Your task to perform on an android device: remove spam from my inbox in the gmail app Image 0: 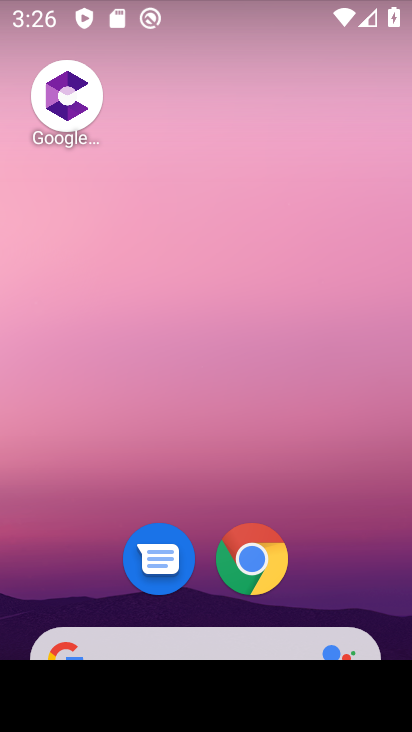
Step 0: press back button
Your task to perform on an android device: remove spam from my inbox in the gmail app Image 1: 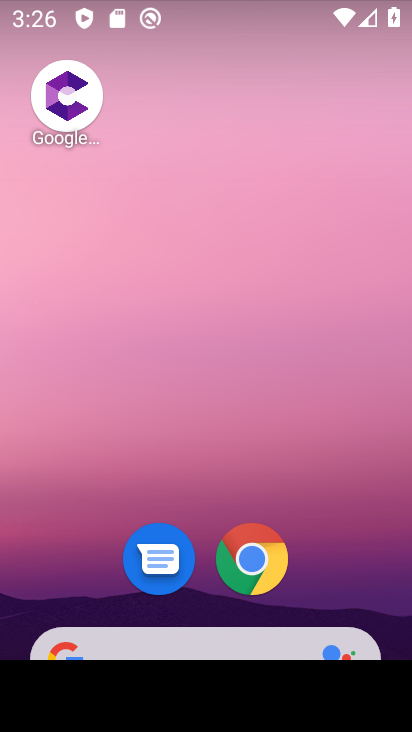
Step 1: drag from (333, 554) to (136, 65)
Your task to perform on an android device: remove spam from my inbox in the gmail app Image 2: 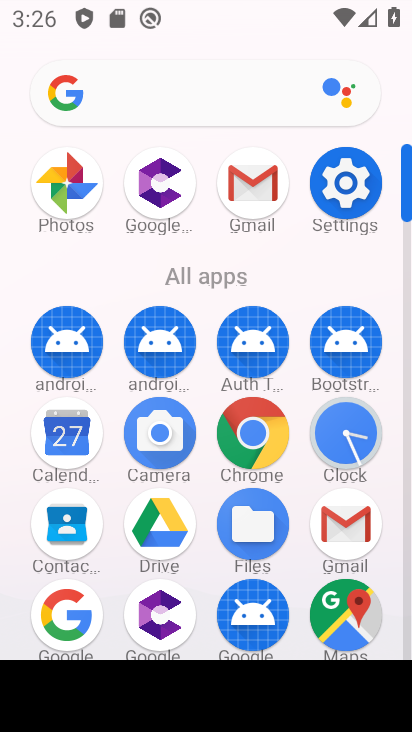
Step 2: press back button
Your task to perform on an android device: remove spam from my inbox in the gmail app Image 3: 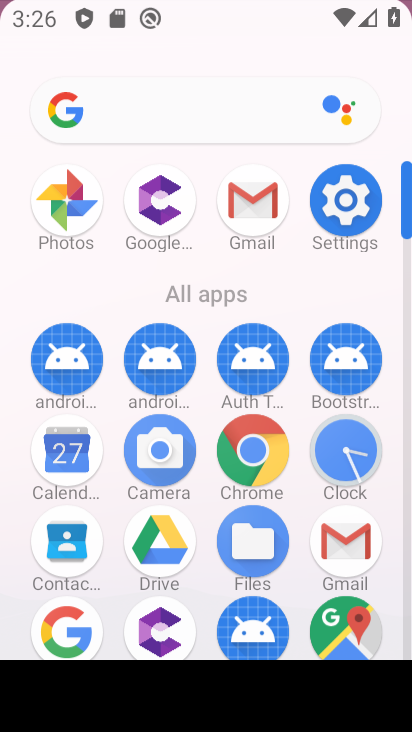
Step 3: press back button
Your task to perform on an android device: remove spam from my inbox in the gmail app Image 4: 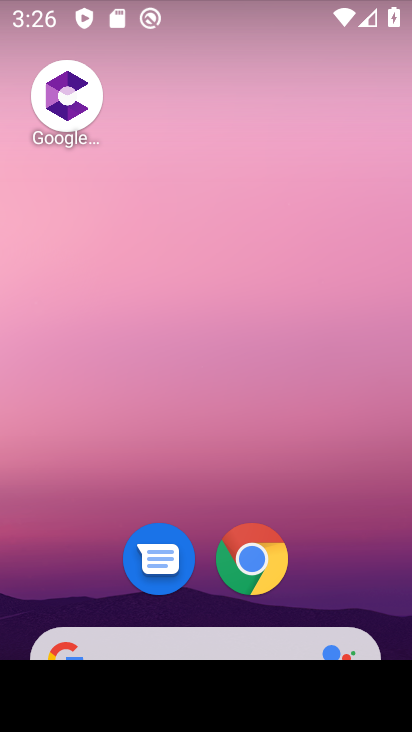
Step 4: drag from (353, 569) to (139, 59)
Your task to perform on an android device: remove spam from my inbox in the gmail app Image 5: 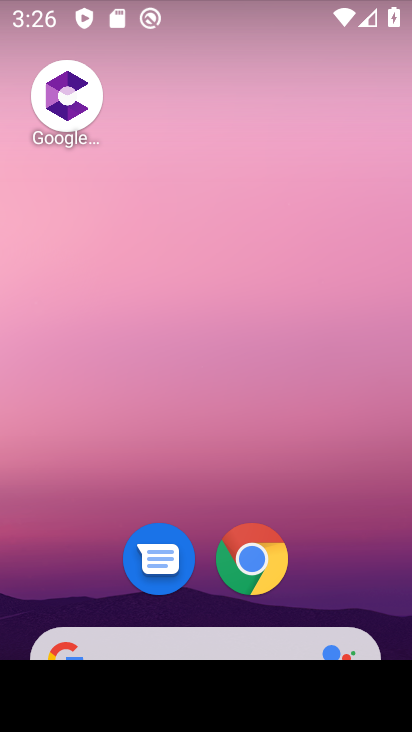
Step 5: drag from (265, 446) to (126, 123)
Your task to perform on an android device: remove spam from my inbox in the gmail app Image 6: 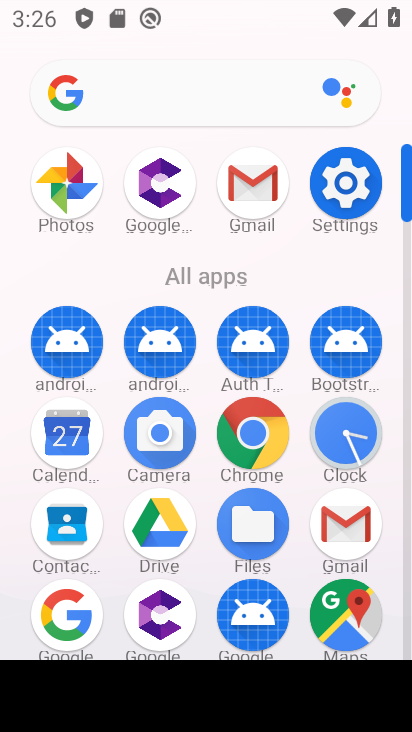
Step 6: click (333, 518)
Your task to perform on an android device: remove spam from my inbox in the gmail app Image 7: 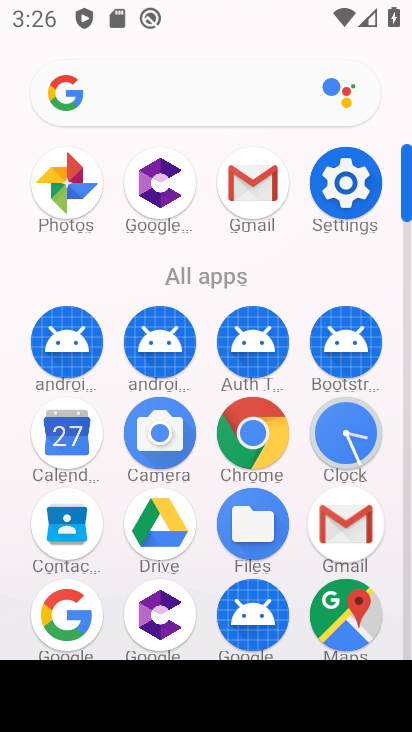
Step 7: click (334, 519)
Your task to perform on an android device: remove spam from my inbox in the gmail app Image 8: 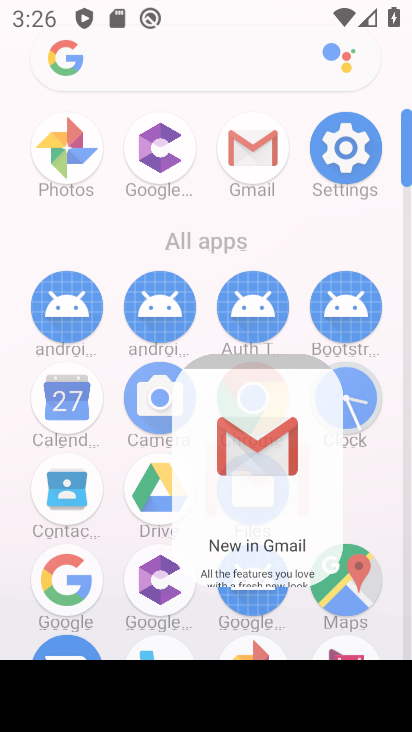
Step 8: click (335, 519)
Your task to perform on an android device: remove spam from my inbox in the gmail app Image 9: 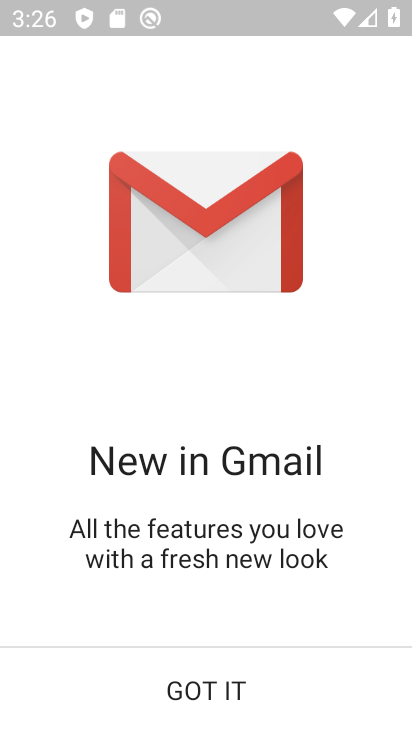
Step 9: click (335, 519)
Your task to perform on an android device: remove spam from my inbox in the gmail app Image 10: 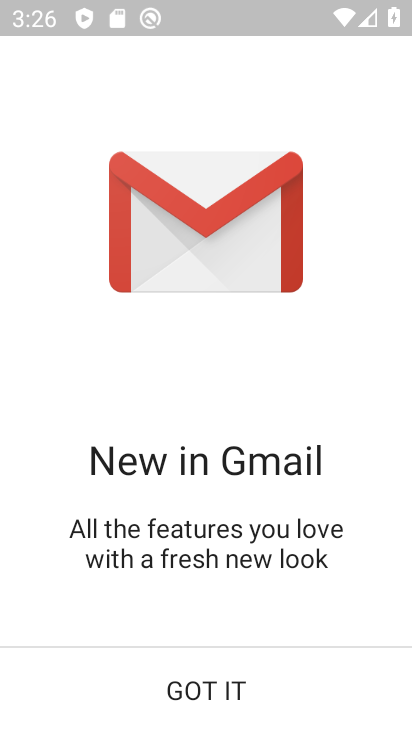
Step 10: click (335, 519)
Your task to perform on an android device: remove spam from my inbox in the gmail app Image 11: 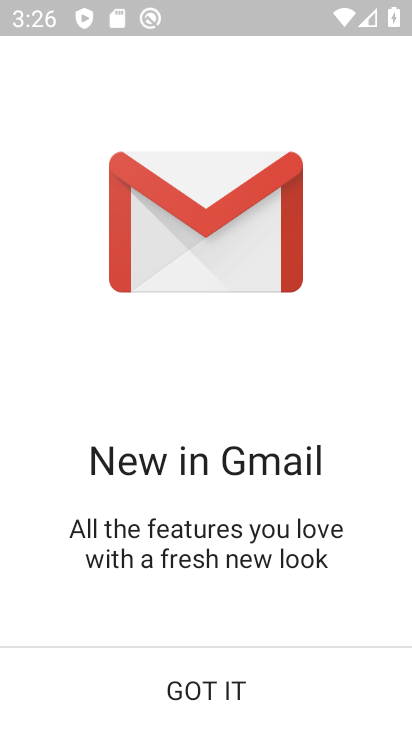
Step 11: click (335, 519)
Your task to perform on an android device: remove spam from my inbox in the gmail app Image 12: 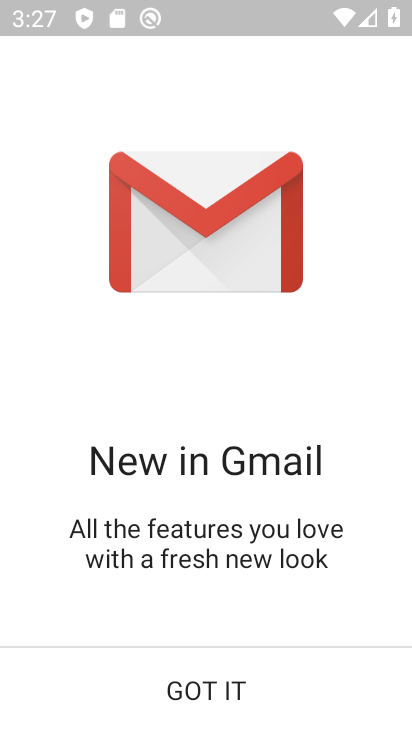
Step 12: click (186, 692)
Your task to perform on an android device: remove spam from my inbox in the gmail app Image 13: 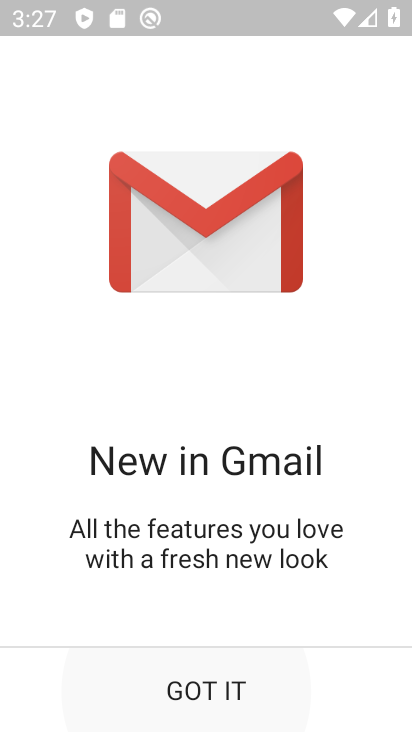
Step 13: click (193, 685)
Your task to perform on an android device: remove spam from my inbox in the gmail app Image 14: 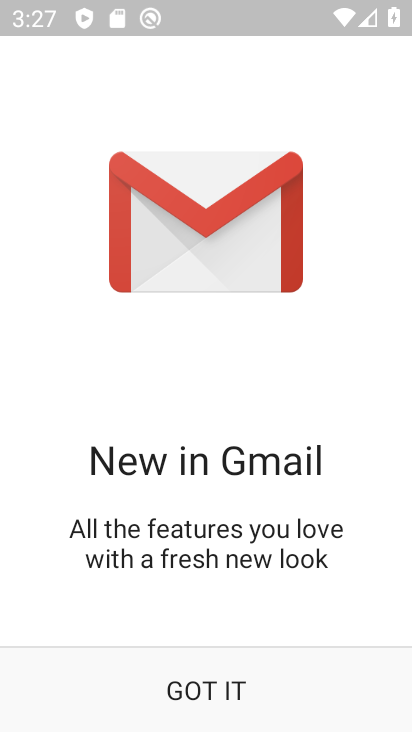
Step 14: drag from (203, 675) to (210, 713)
Your task to perform on an android device: remove spam from my inbox in the gmail app Image 15: 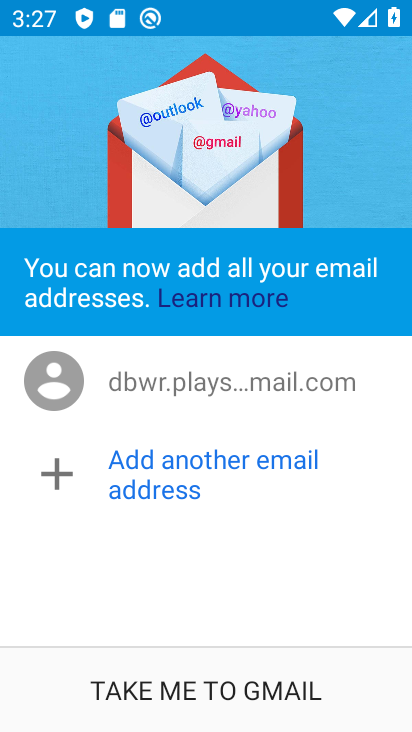
Step 15: click (207, 691)
Your task to perform on an android device: remove spam from my inbox in the gmail app Image 16: 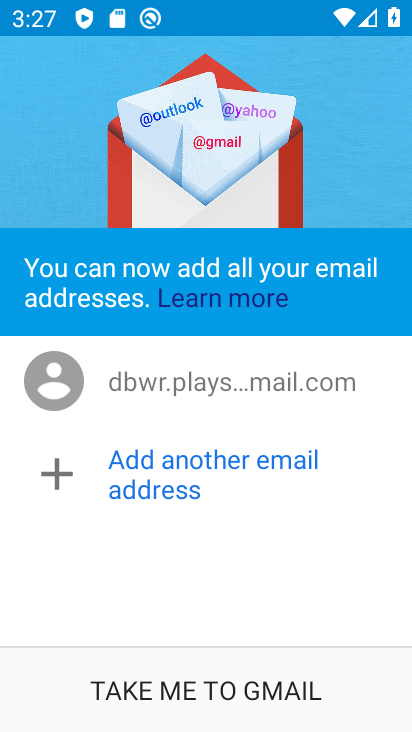
Step 16: click (220, 675)
Your task to perform on an android device: remove spam from my inbox in the gmail app Image 17: 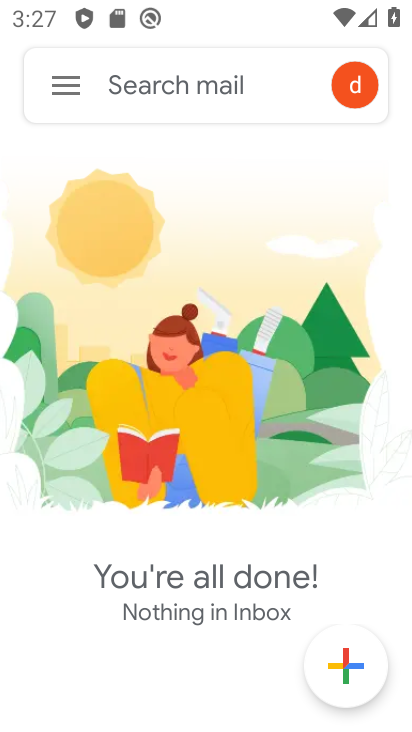
Step 17: click (58, 88)
Your task to perform on an android device: remove spam from my inbox in the gmail app Image 18: 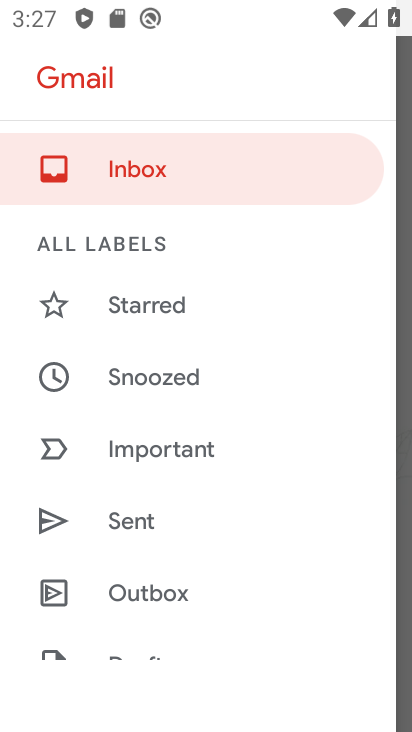
Step 18: click (144, 161)
Your task to perform on an android device: remove spam from my inbox in the gmail app Image 19: 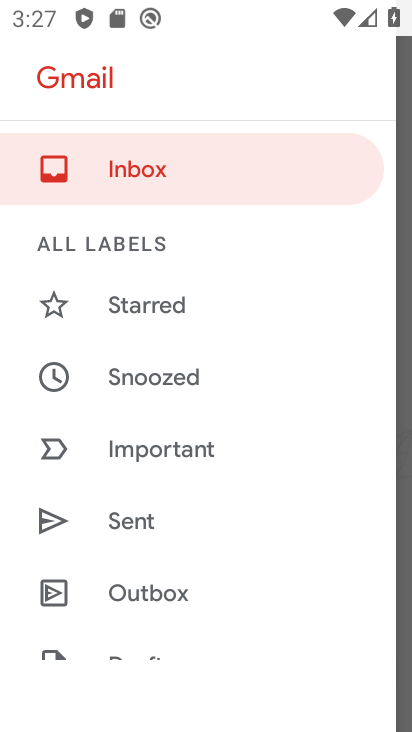
Step 19: drag from (168, 413) to (145, 192)
Your task to perform on an android device: remove spam from my inbox in the gmail app Image 20: 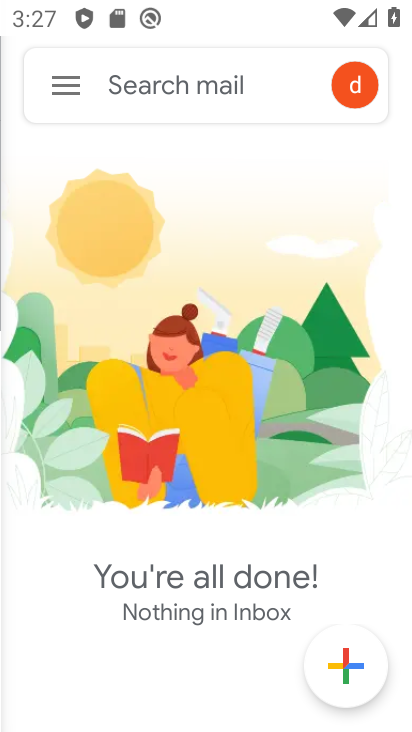
Step 20: click (122, 159)
Your task to perform on an android device: remove spam from my inbox in the gmail app Image 21: 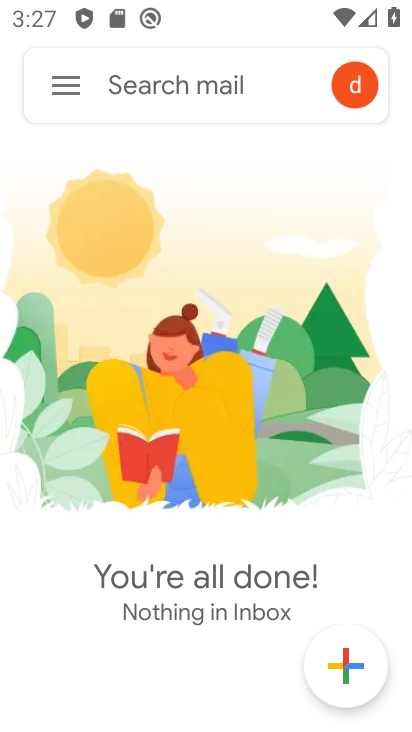
Step 21: drag from (180, 223) to (180, 167)
Your task to perform on an android device: remove spam from my inbox in the gmail app Image 22: 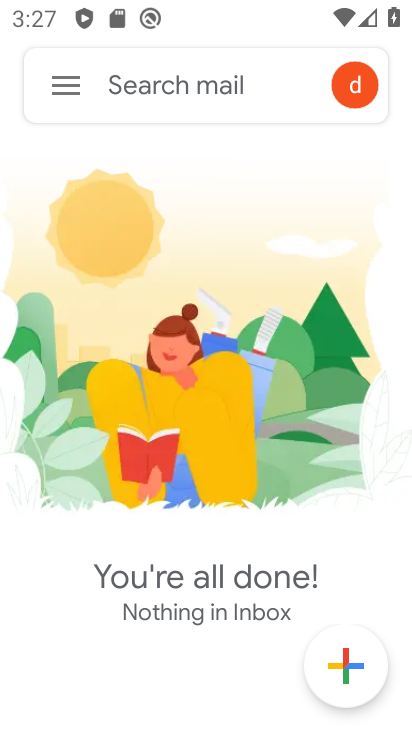
Step 22: click (54, 89)
Your task to perform on an android device: remove spam from my inbox in the gmail app Image 23: 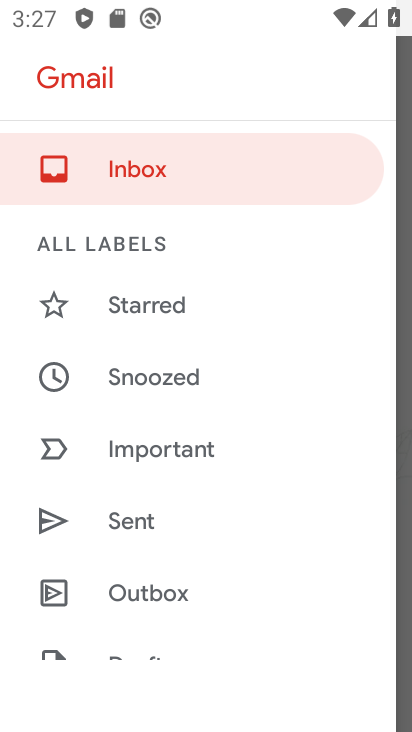
Step 23: drag from (157, 548) to (201, 219)
Your task to perform on an android device: remove spam from my inbox in the gmail app Image 24: 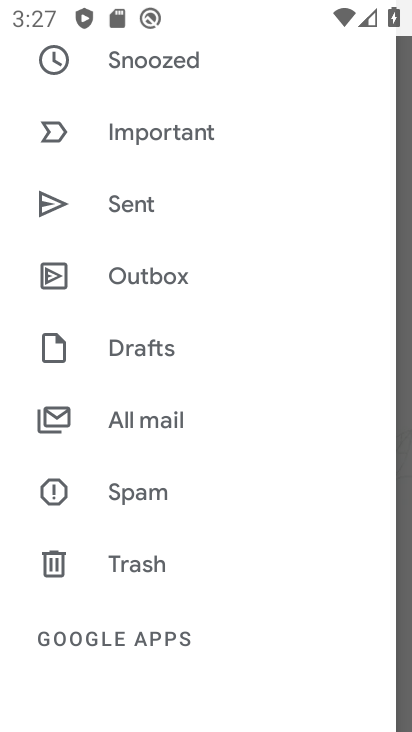
Step 24: click (129, 494)
Your task to perform on an android device: remove spam from my inbox in the gmail app Image 25: 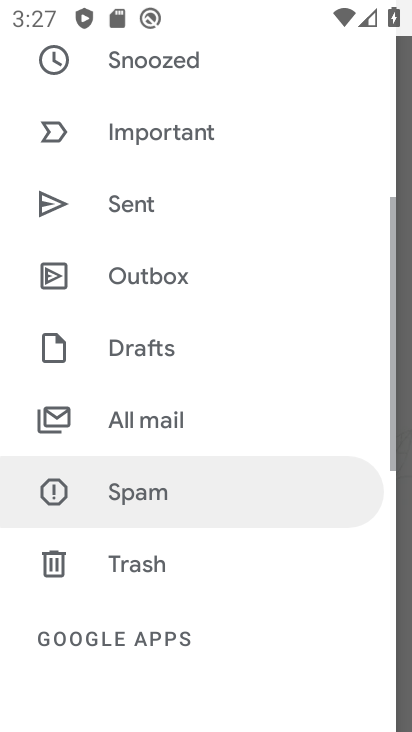
Step 25: click (130, 494)
Your task to perform on an android device: remove spam from my inbox in the gmail app Image 26: 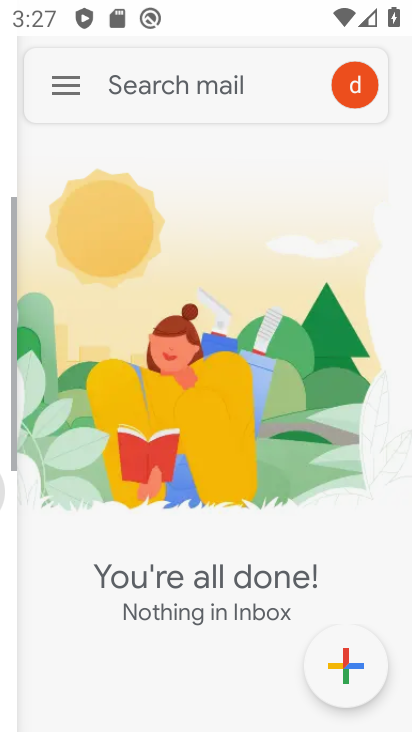
Step 26: click (130, 494)
Your task to perform on an android device: remove spam from my inbox in the gmail app Image 27: 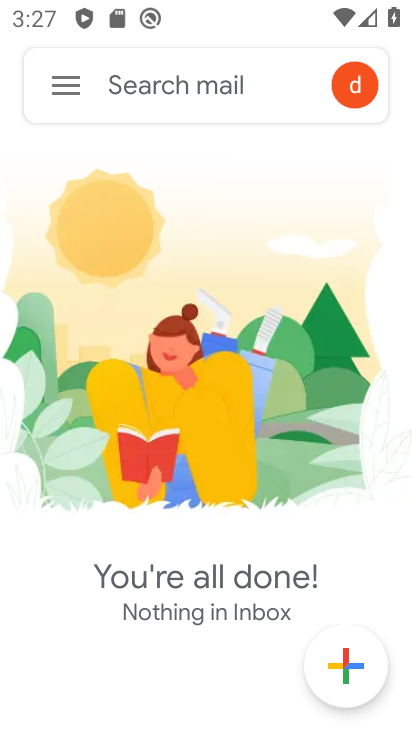
Step 27: click (130, 494)
Your task to perform on an android device: remove spam from my inbox in the gmail app Image 28: 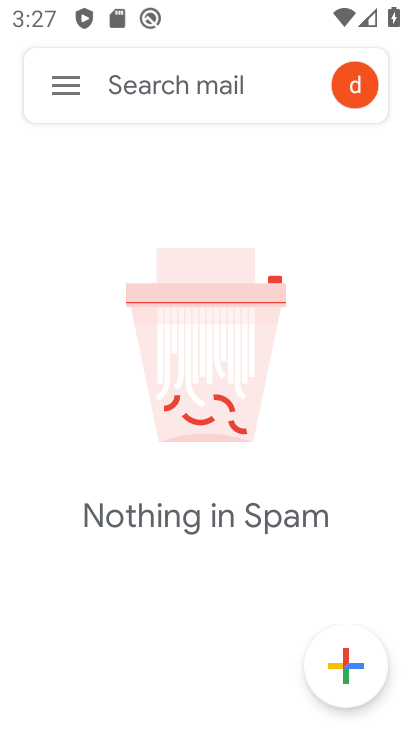
Step 28: click (131, 487)
Your task to perform on an android device: remove spam from my inbox in the gmail app Image 29: 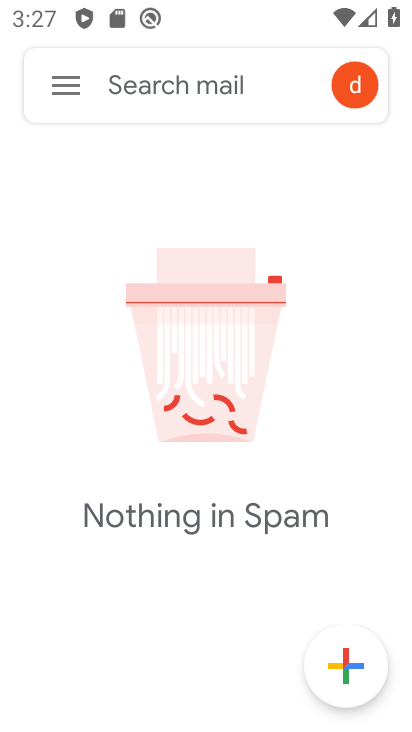
Step 29: task complete